Your task to perform on an android device: check battery use Image 0: 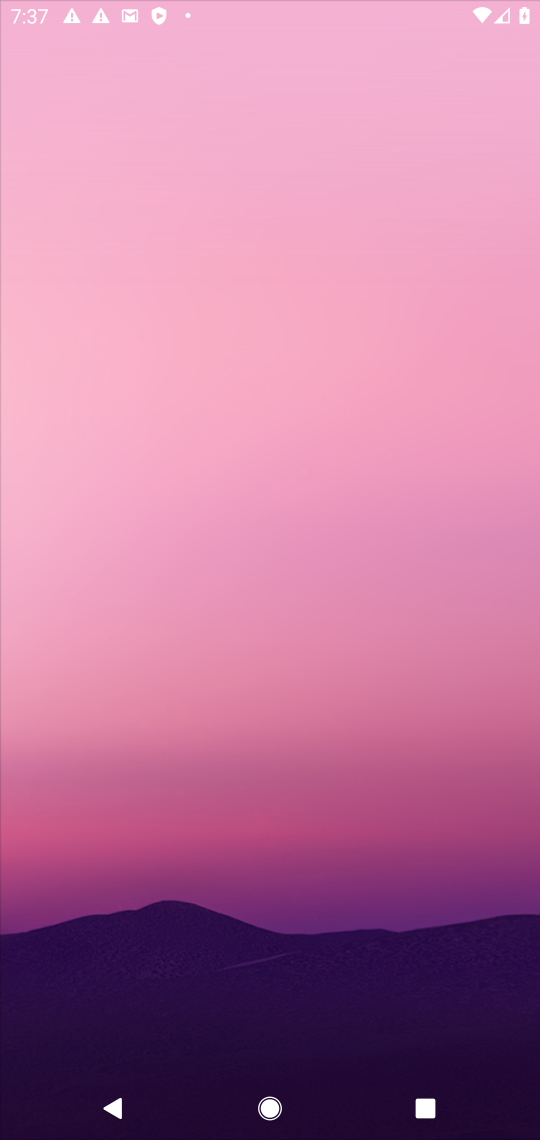
Step 0: click (155, 920)
Your task to perform on an android device: check battery use Image 1: 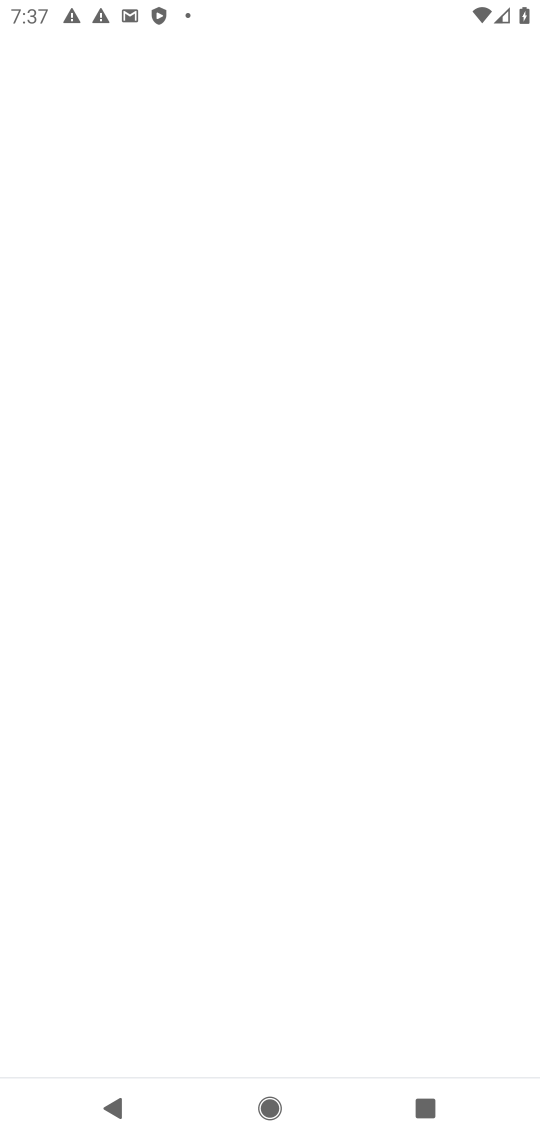
Step 1: press home button
Your task to perform on an android device: check battery use Image 2: 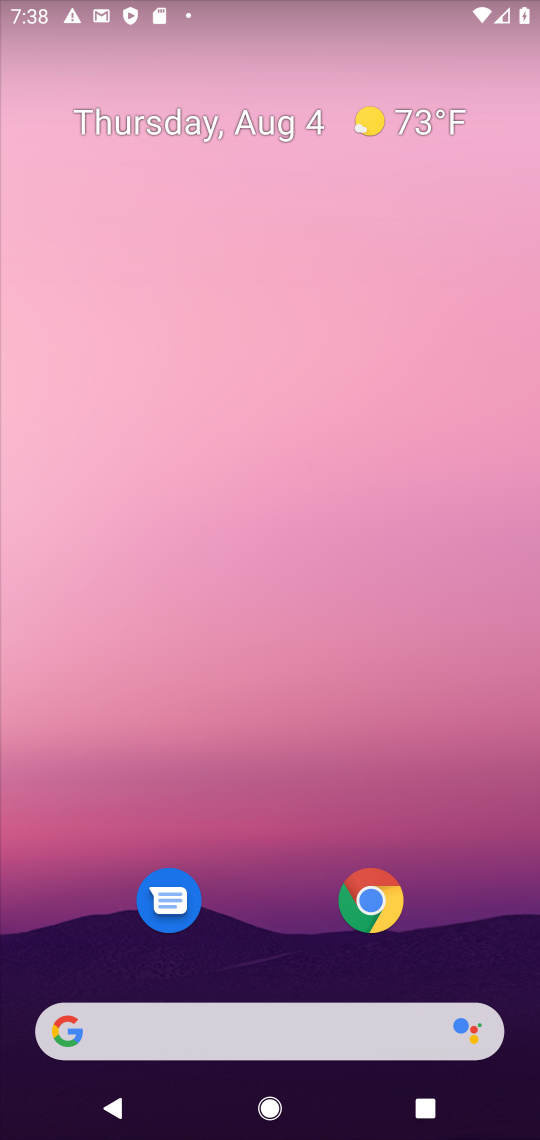
Step 2: drag from (281, 1032) to (494, 93)
Your task to perform on an android device: check battery use Image 3: 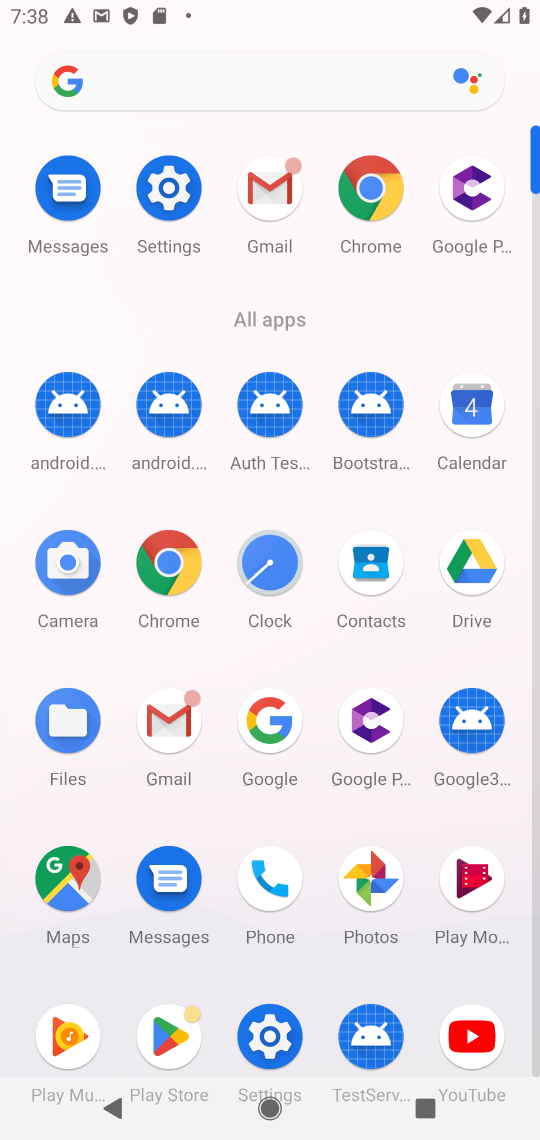
Step 3: click (179, 187)
Your task to perform on an android device: check battery use Image 4: 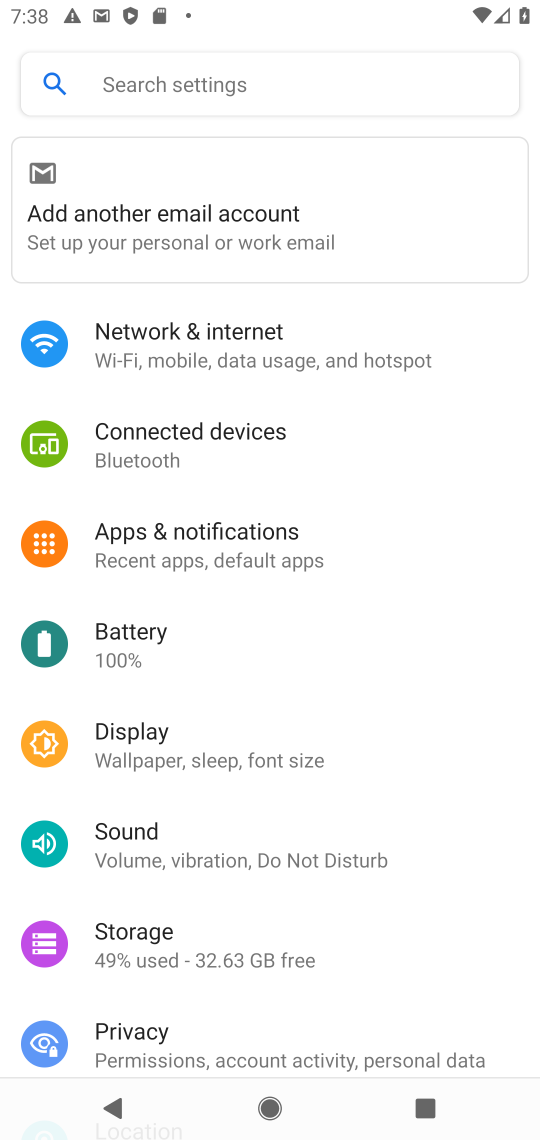
Step 4: click (145, 636)
Your task to perform on an android device: check battery use Image 5: 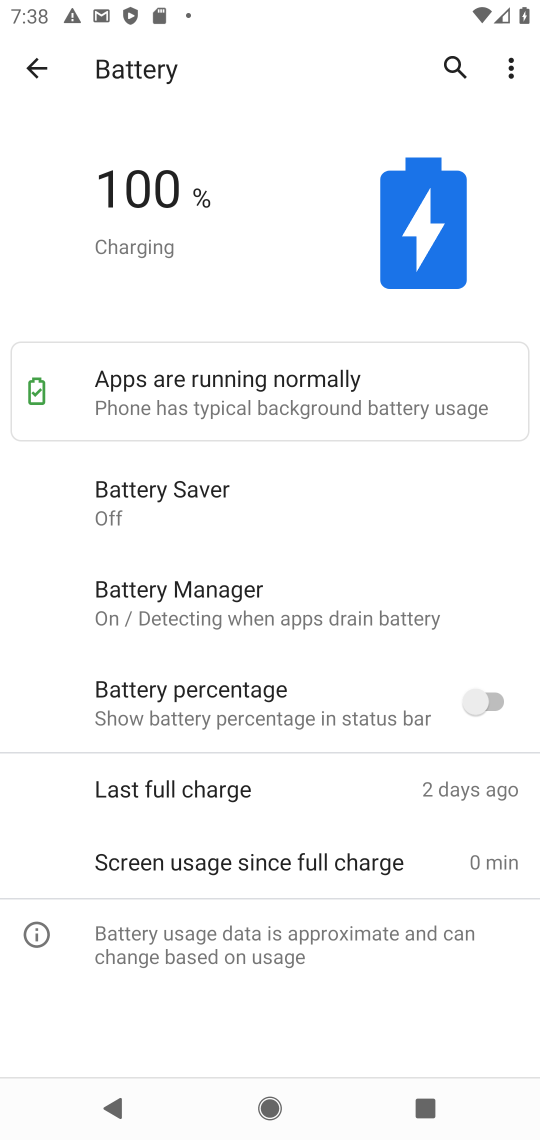
Step 5: click (505, 70)
Your task to perform on an android device: check battery use Image 6: 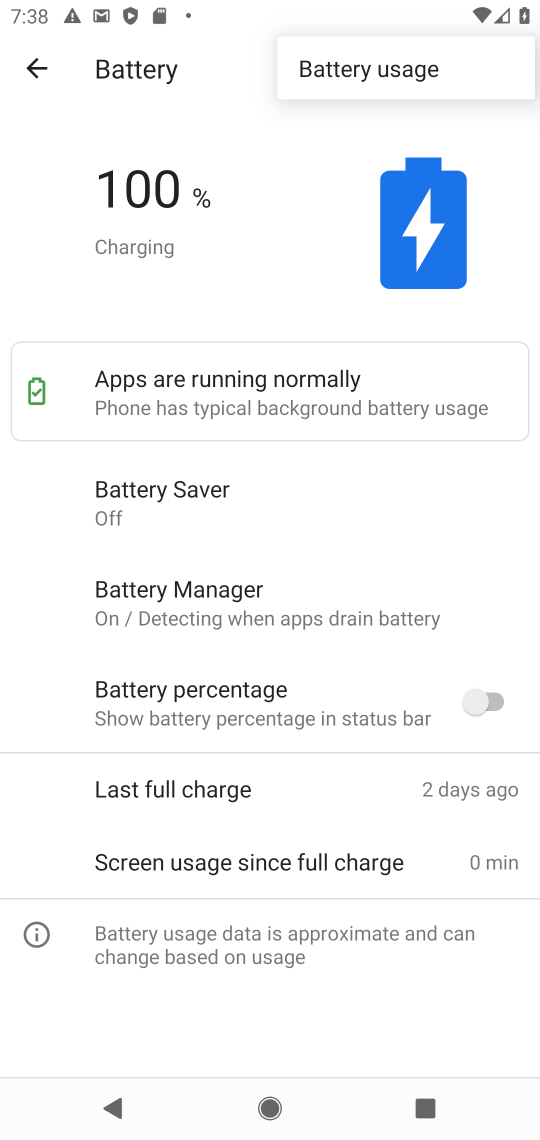
Step 6: click (379, 67)
Your task to perform on an android device: check battery use Image 7: 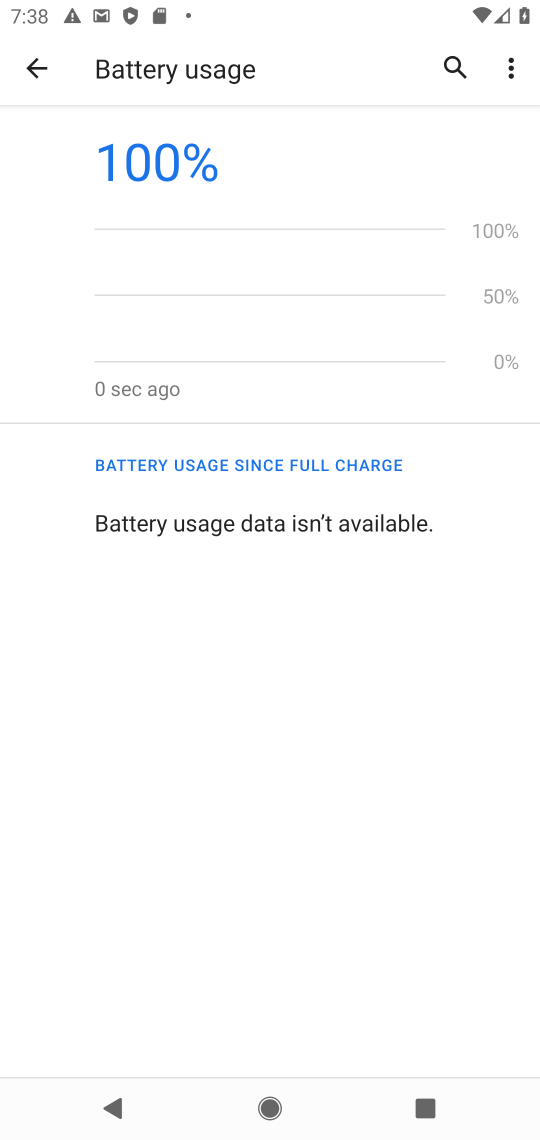
Step 7: task complete